Your task to perform on an android device: Add "razer blade" to the cart on newegg, then select checkout. Image 0: 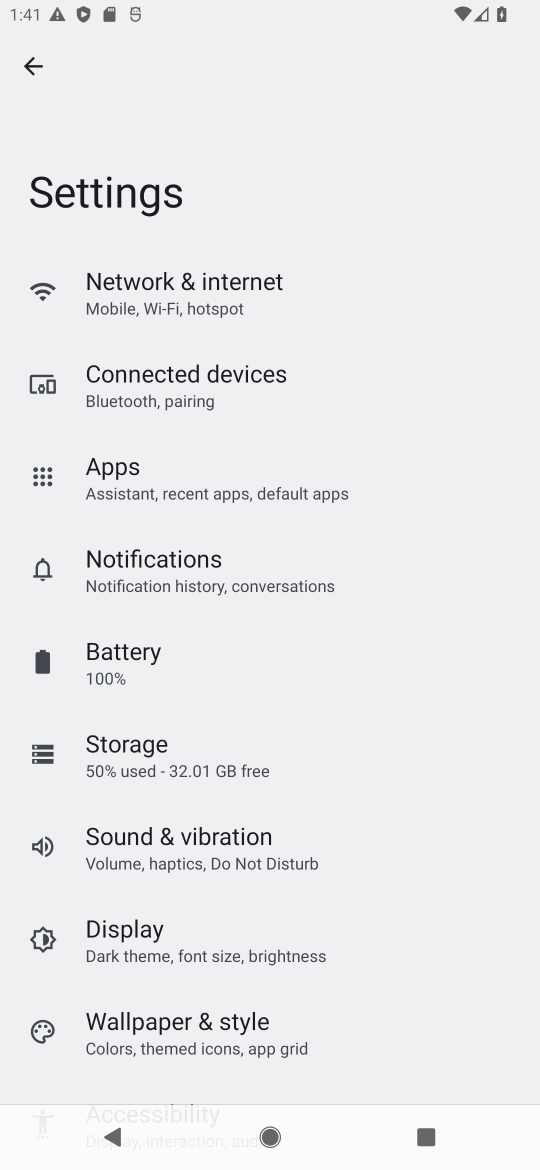
Step 0: task complete